Your task to perform on an android device: turn pop-ups off in chrome Image 0: 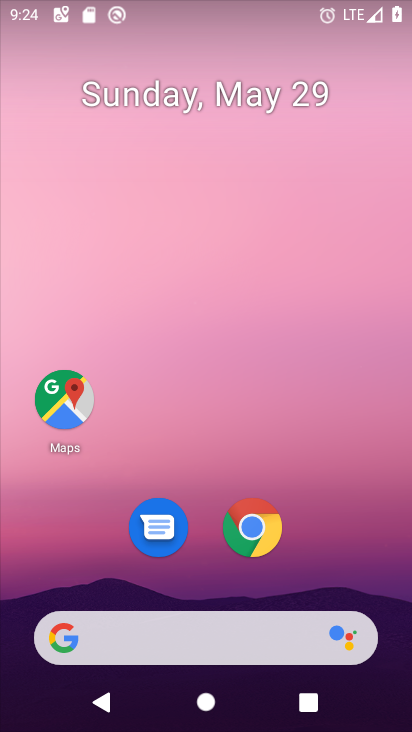
Step 0: click (246, 522)
Your task to perform on an android device: turn pop-ups off in chrome Image 1: 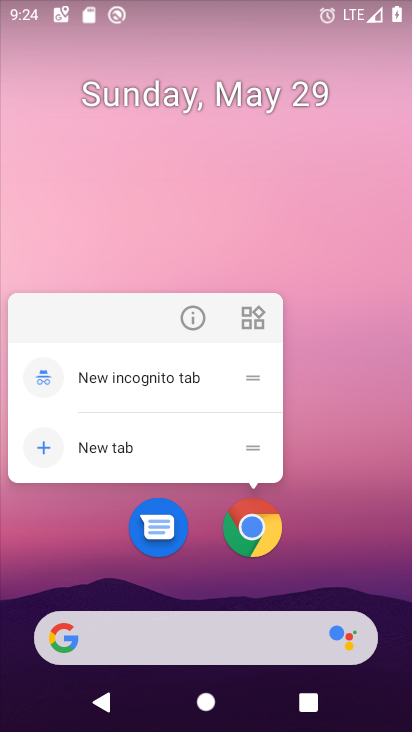
Step 1: click (178, 319)
Your task to perform on an android device: turn pop-ups off in chrome Image 2: 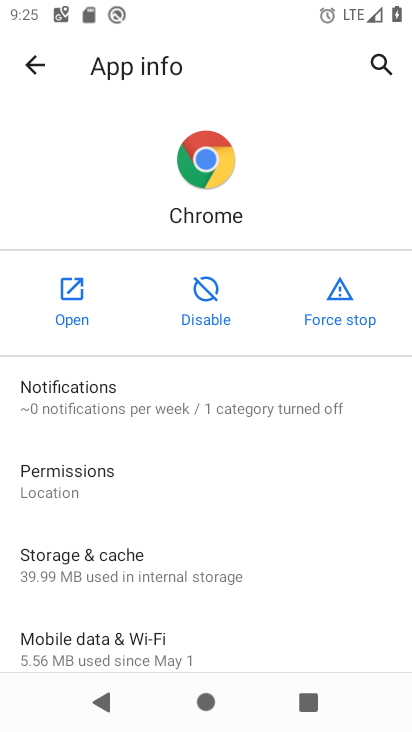
Step 2: drag from (194, 639) to (193, 259)
Your task to perform on an android device: turn pop-ups off in chrome Image 3: 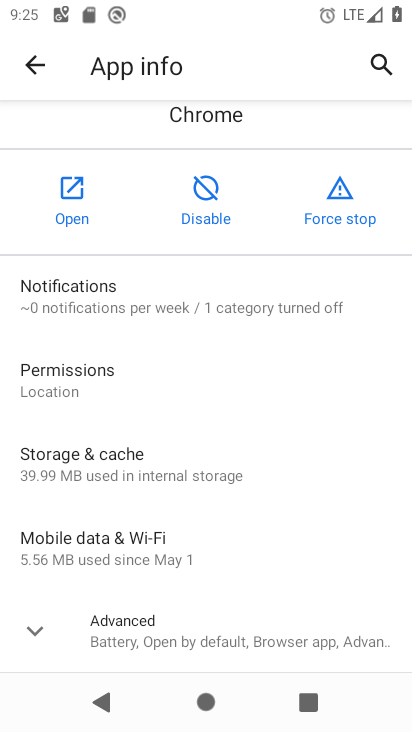
Step 3: click (33, 630)
Your task to perform on an android device: turn pop-ups off in chrome Image 4: 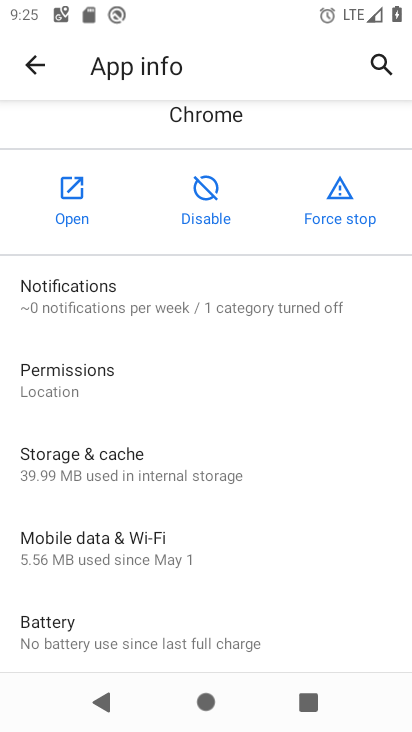
Step 4: drag from (147, 600) to (141, 139)
Your task to perform on an android device: turn pop-ups off in chrome Image 5: 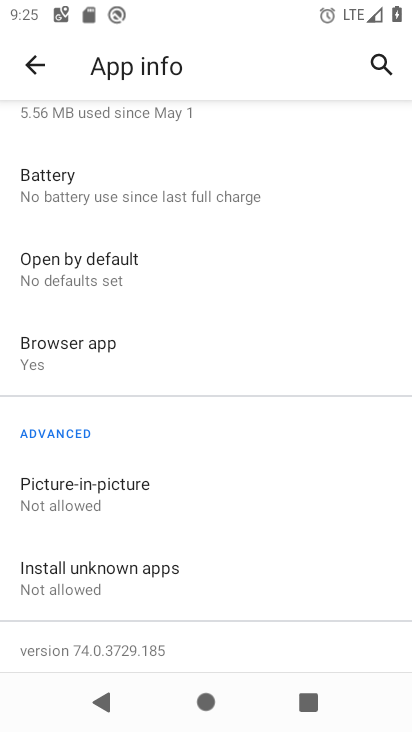
Step 5: click (143, 498)
Your task to perform on an android device: turn pop-ups off in chrome Image 6: 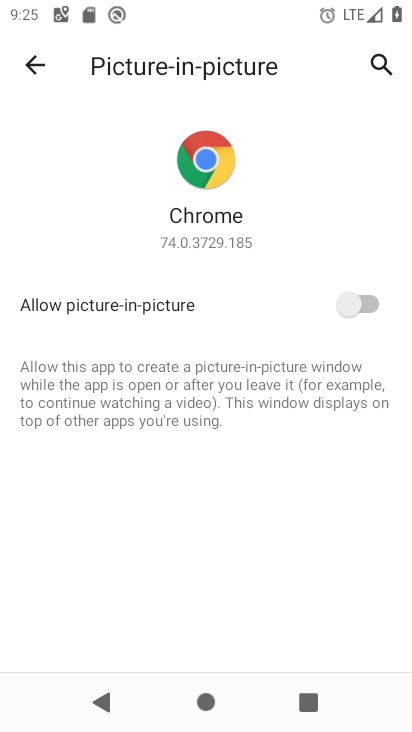
Step 6: task complete